Your task to perform on an android device: toggle airplane mode Image 0: 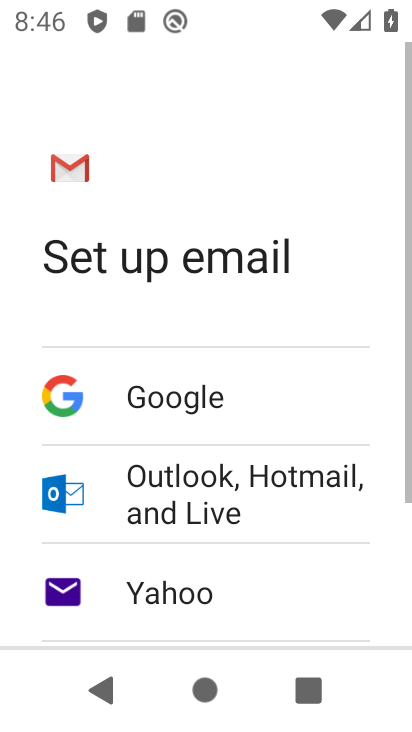
Step 0: press home button
Your task to perform on an android device: toggle airplane mode Image 1: 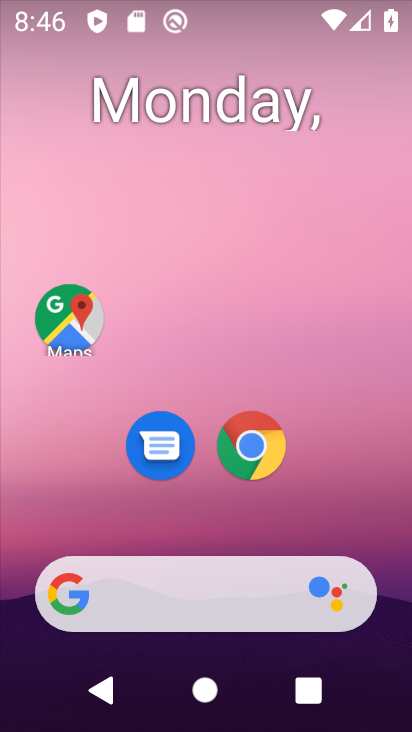
Step 1: drag from (386, 515) to (372, 172)
Your task to perform on an android device: toggle airplane mode Image 2: 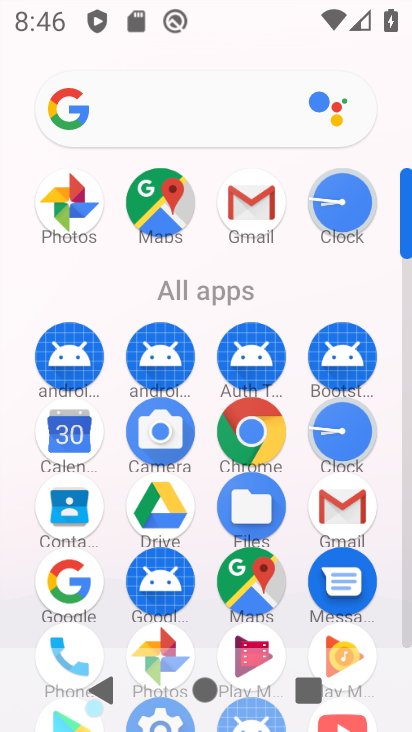
Step 2: drag from (380, 527) to (388, 264)
Your task to perform on an android device: toggle airplane mode Image 3: 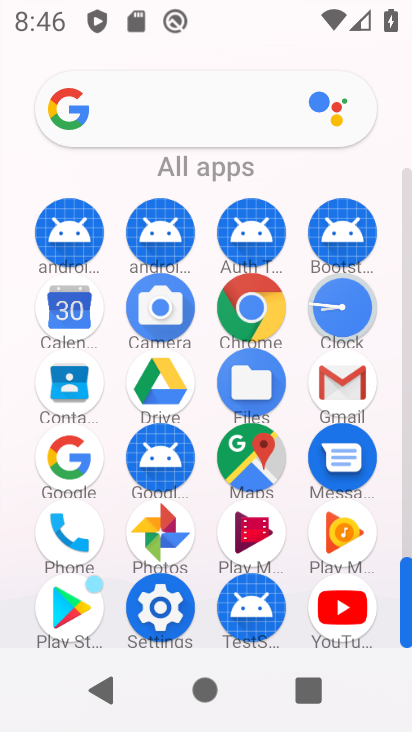
Step 3: click (150, 607)
Your task to perform on an android device: toggle airplane mode Image 4: 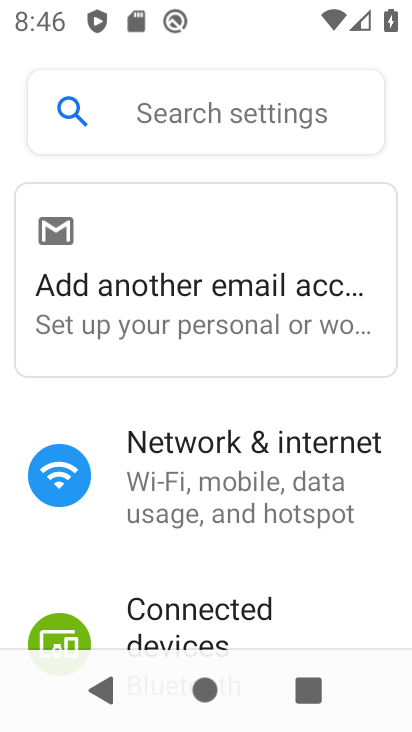
Step 4: click (242, 513)
Your task to perform on an android device: toggle airplane mode Image 5: 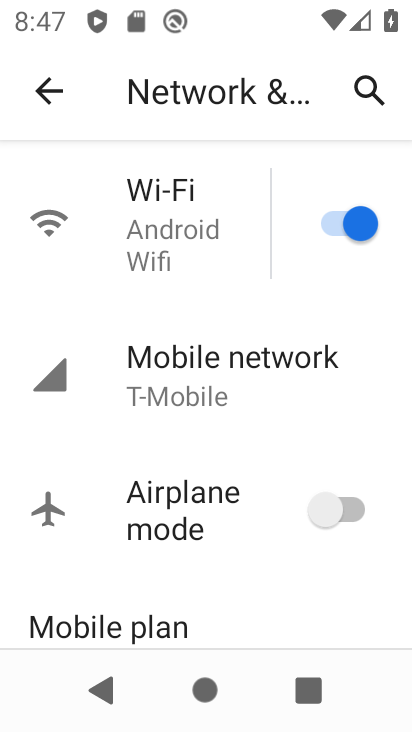
Step 5: click (338, 508)
Your task to perform on an android device: toggle airplane mode Image 6: 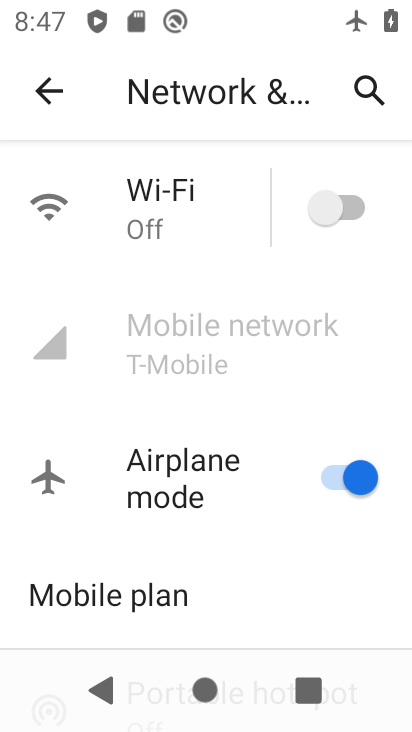
Step 6: task complete